Your task to perform on an android device: open app "Pandora - Music & Podcasts" (install if not already installed), go to login, and select forgot password Image 0: 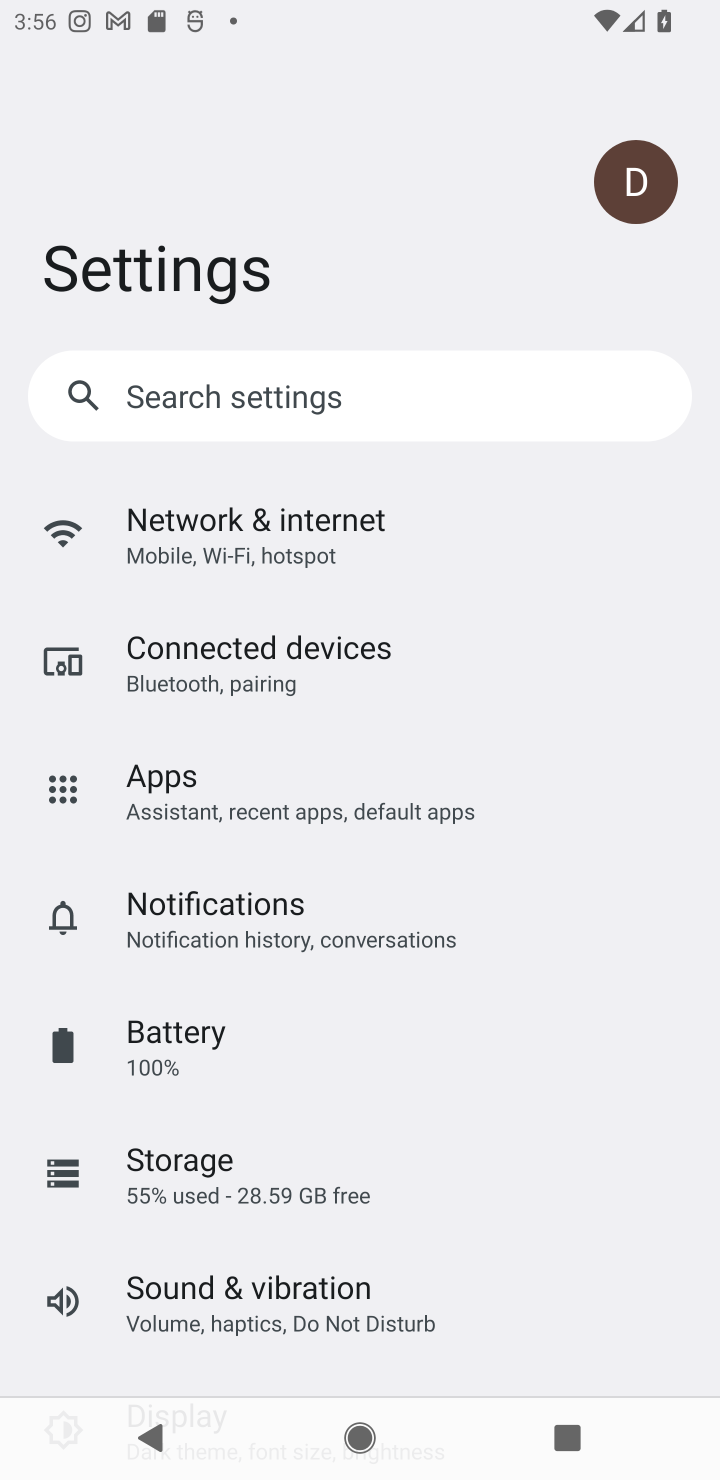
Step 0: press home button
Your task to perform on an android device: open app "Pandora - Music & Podcasts" (install if not already installed), go to login, and select forgot password Image 1: 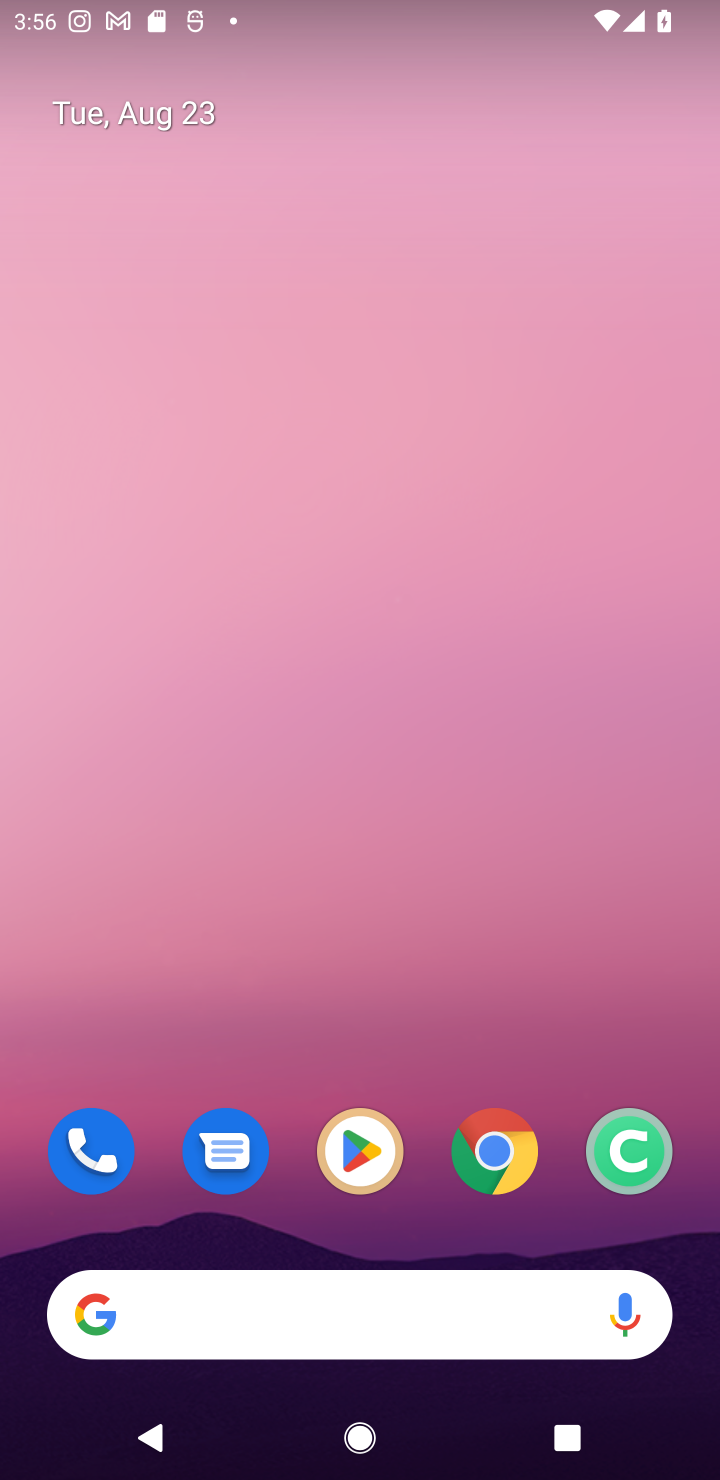
Step 1: click (382, 1129)
Your task to perform on an android device: open app "Pandora - Music & Podcasts" (install if not already installed), go to login, and select forgot password Image 2: 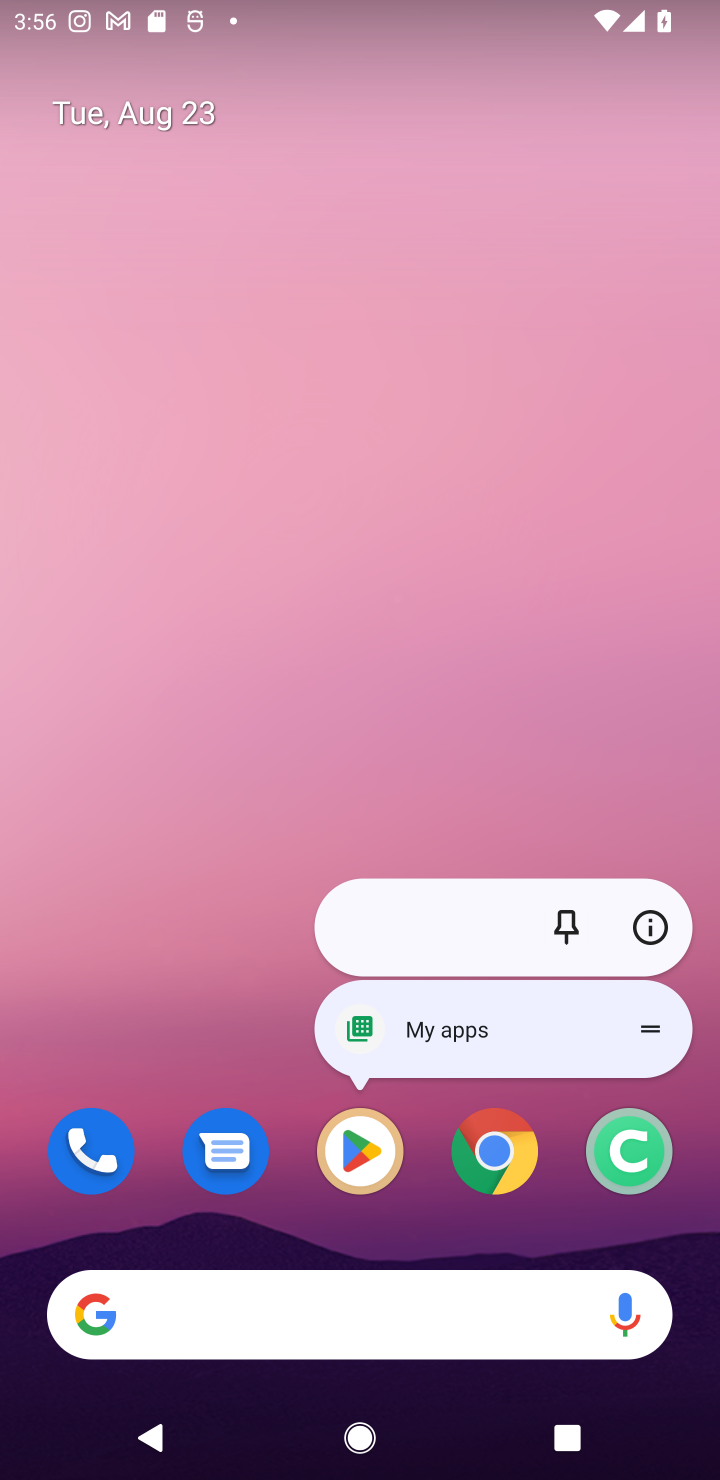
Step 2: click (352, 1154)
Your task to perform on an android device: open app "Pandora - Music & Podcasts" (install if not already installed), go to login, and select forgot password Image 3: 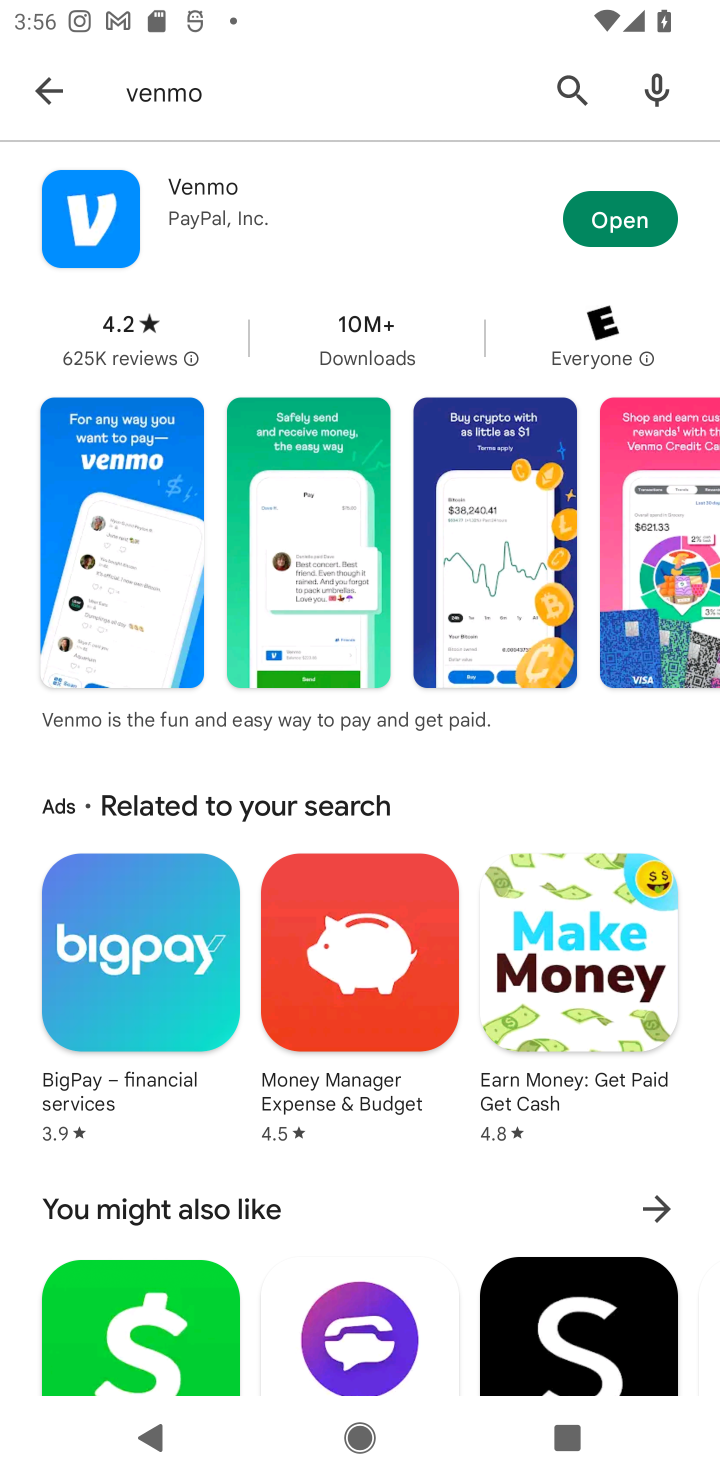
Step 3: click (566, 88)
Your task to perform on an android device: open app "Pandora - Music & Podcasts" (install if not already installed), go to login, and select forgot password Image 4: 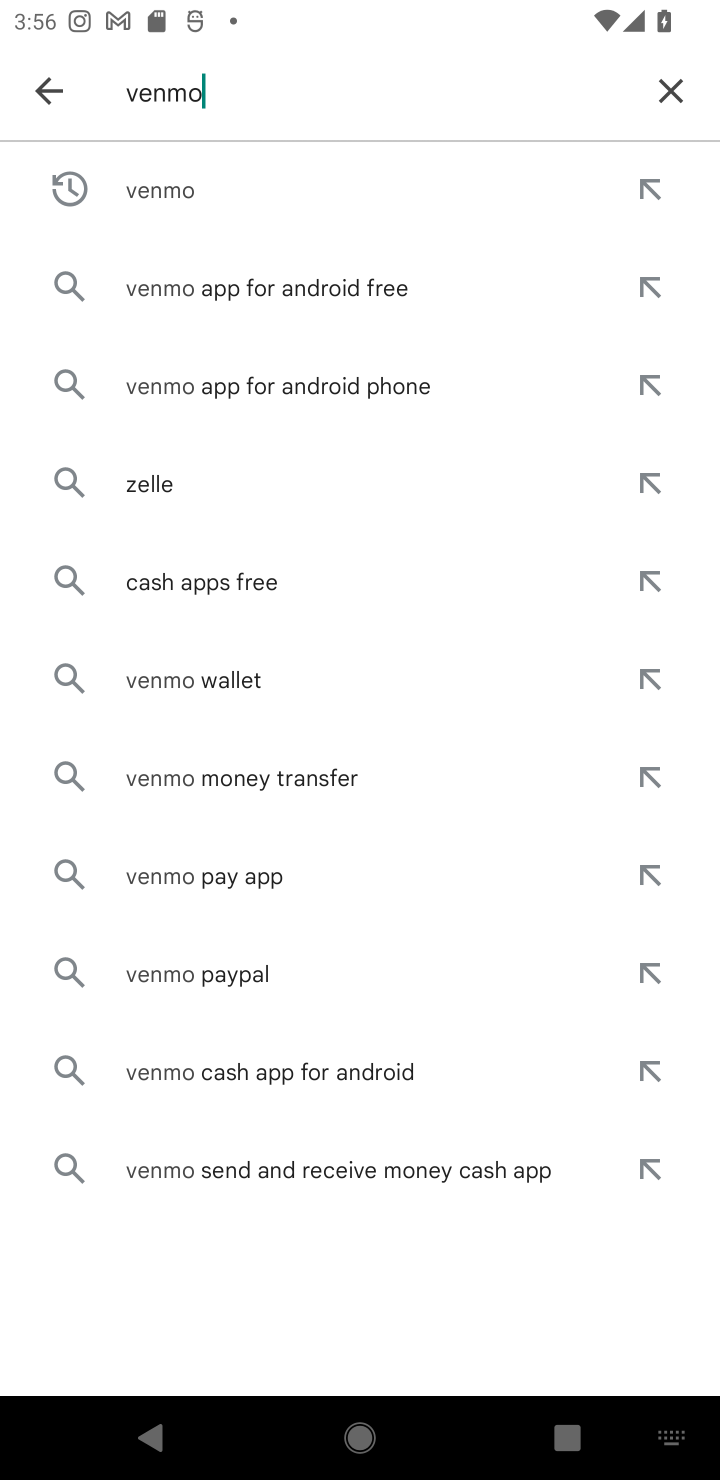
Step 4: click (669, 84)
Your task to perform on an android device: open app "Pandora - Music & Podcasts" (install if not already installed), go to login, and select forgot password Image 5: 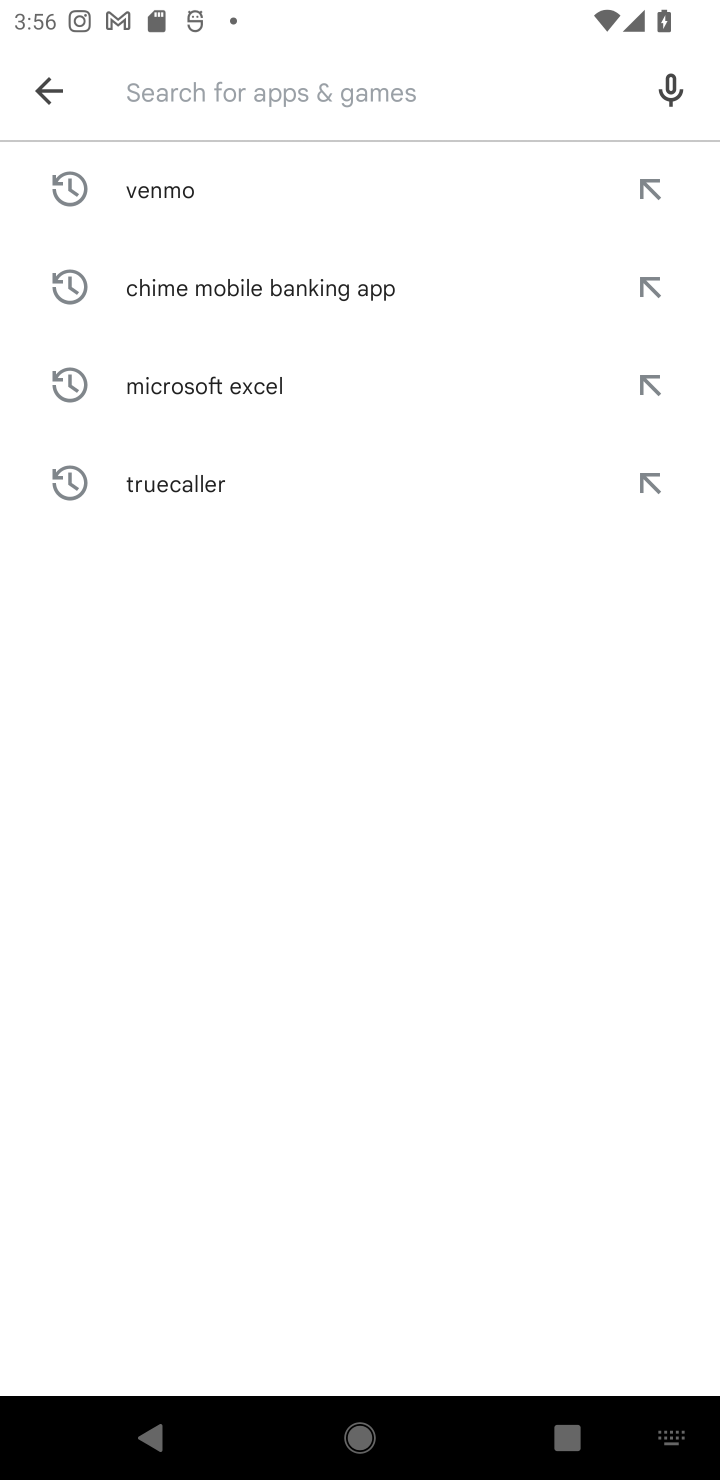
Step 5: type "Pandora - Music & Podcasts"
Your task to perform on an android device: open app "Pandora - Music & Podcasts" (install if not already installed), go to login, and select forgot password Image 6: 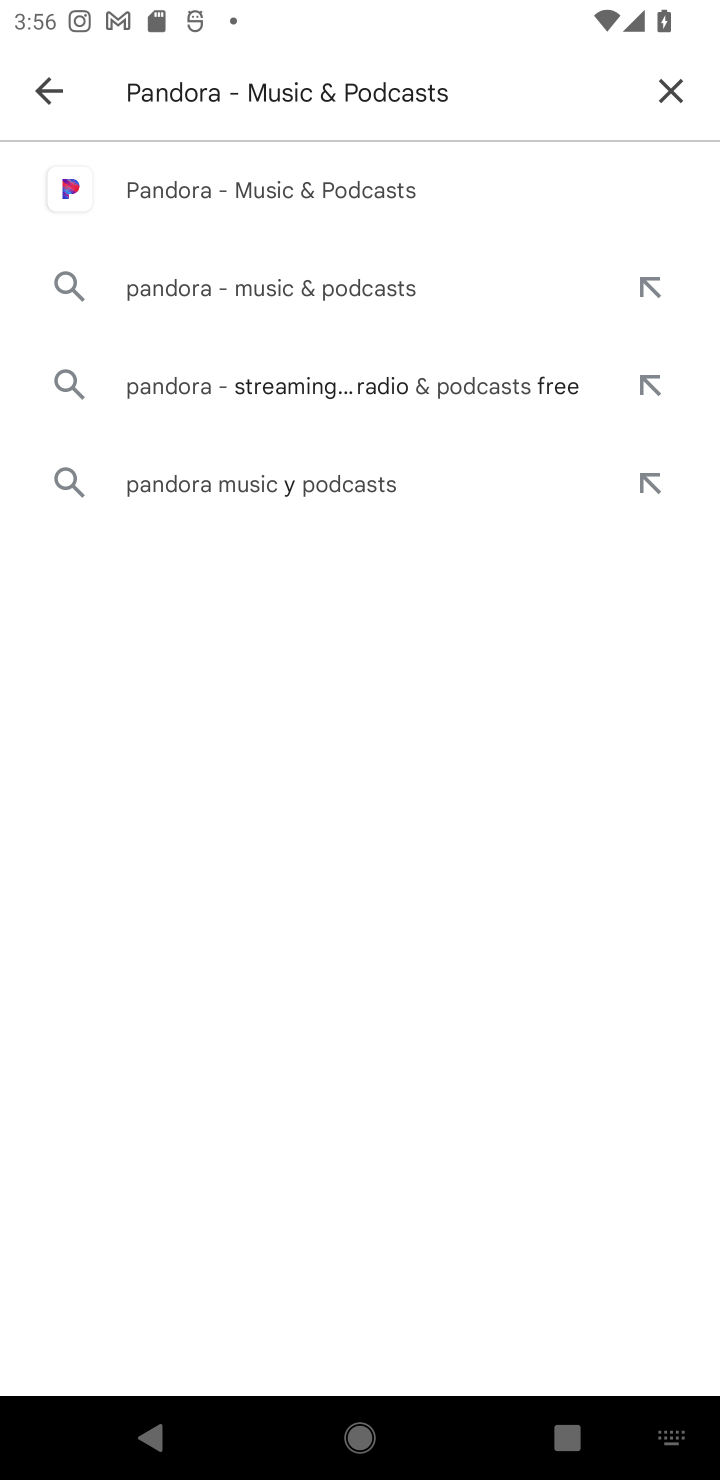
Step 6: click (333, 205)
Your task to perform on an android device: open app "Pandora - Music & Podcasts" (install if not already installed), go to login, and select forgot password Image 7: 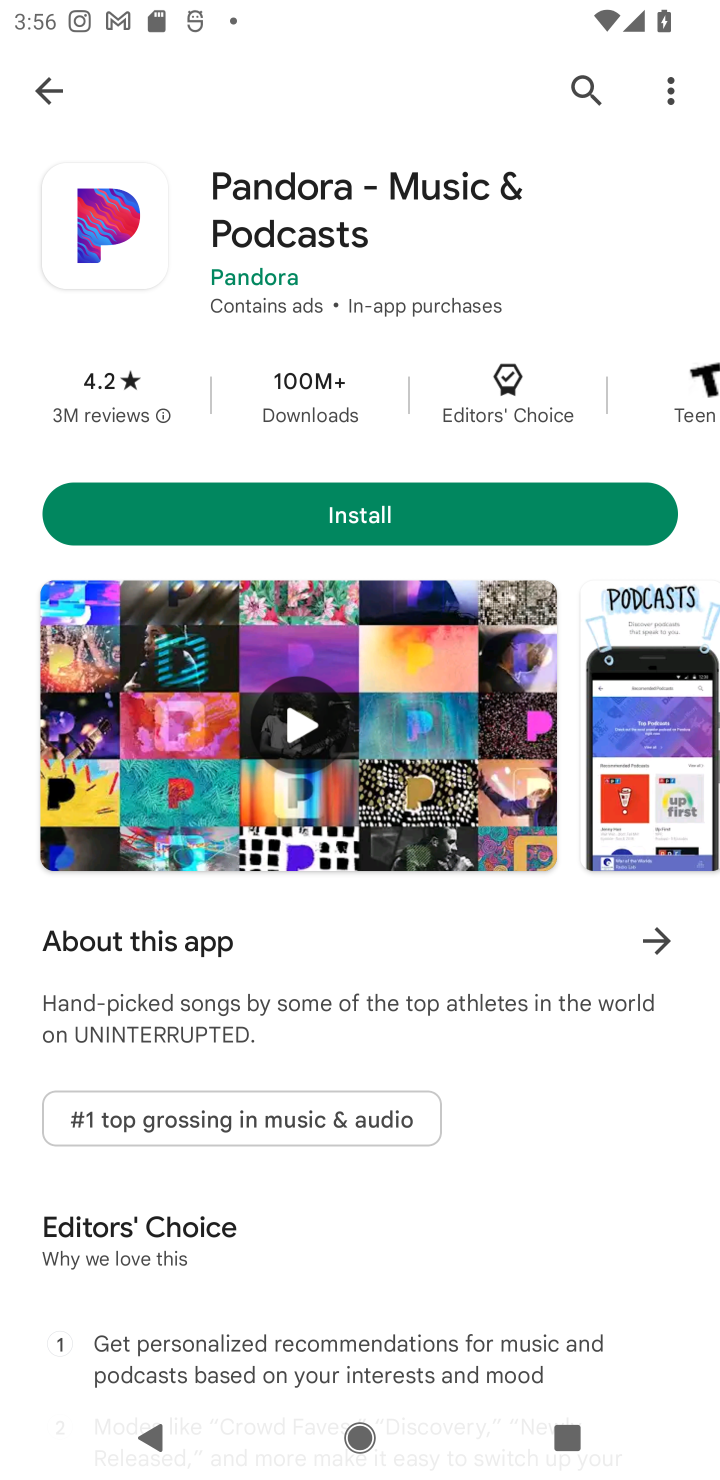
Step 7: click (413, 503)
Your task to perform on an android device: open app "Pandora - Music & Podcasts" (install if not already installed), go to login, and select forgot password Image 8: 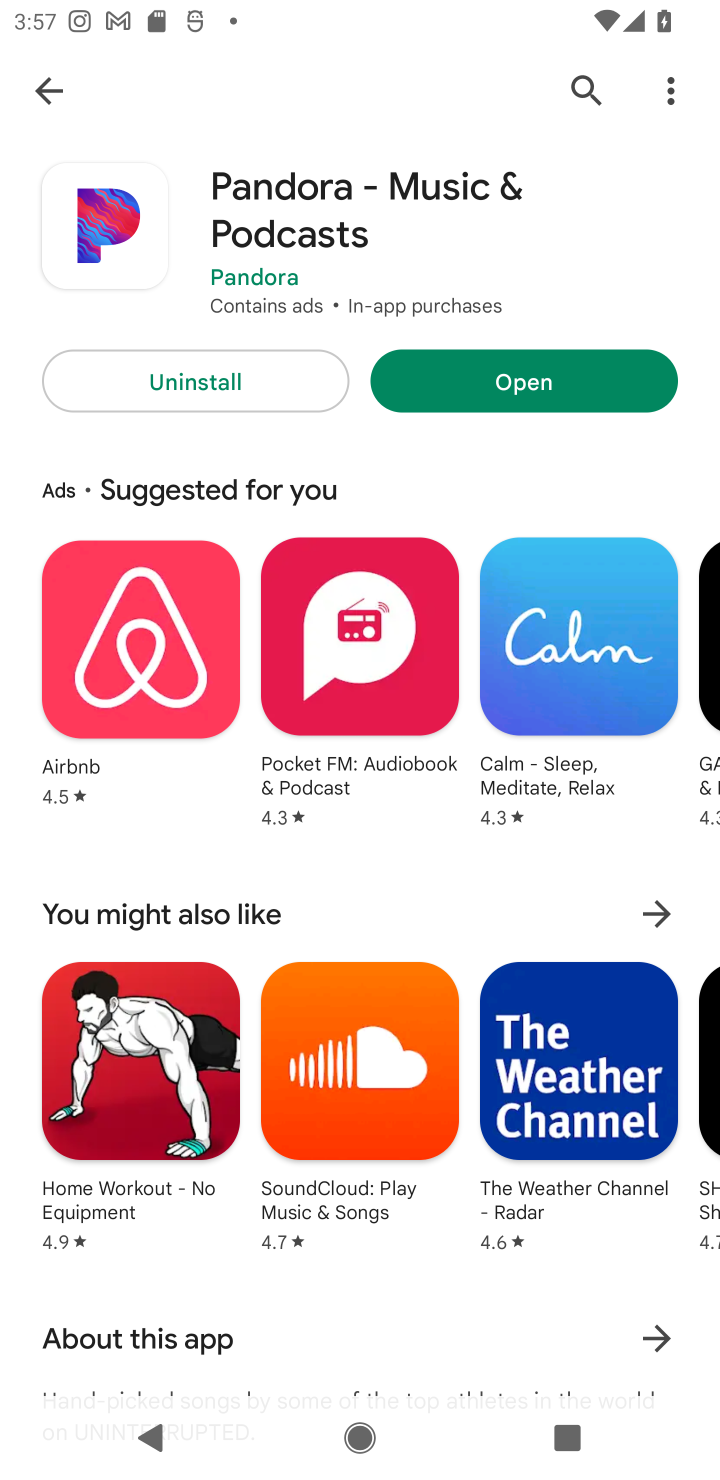
Step 8: click (514, 397)
Your task to perform on an android device: open app "Pandora - Music & Podcasts" (install if not already installed), go to login, and select forgot password Image 9: 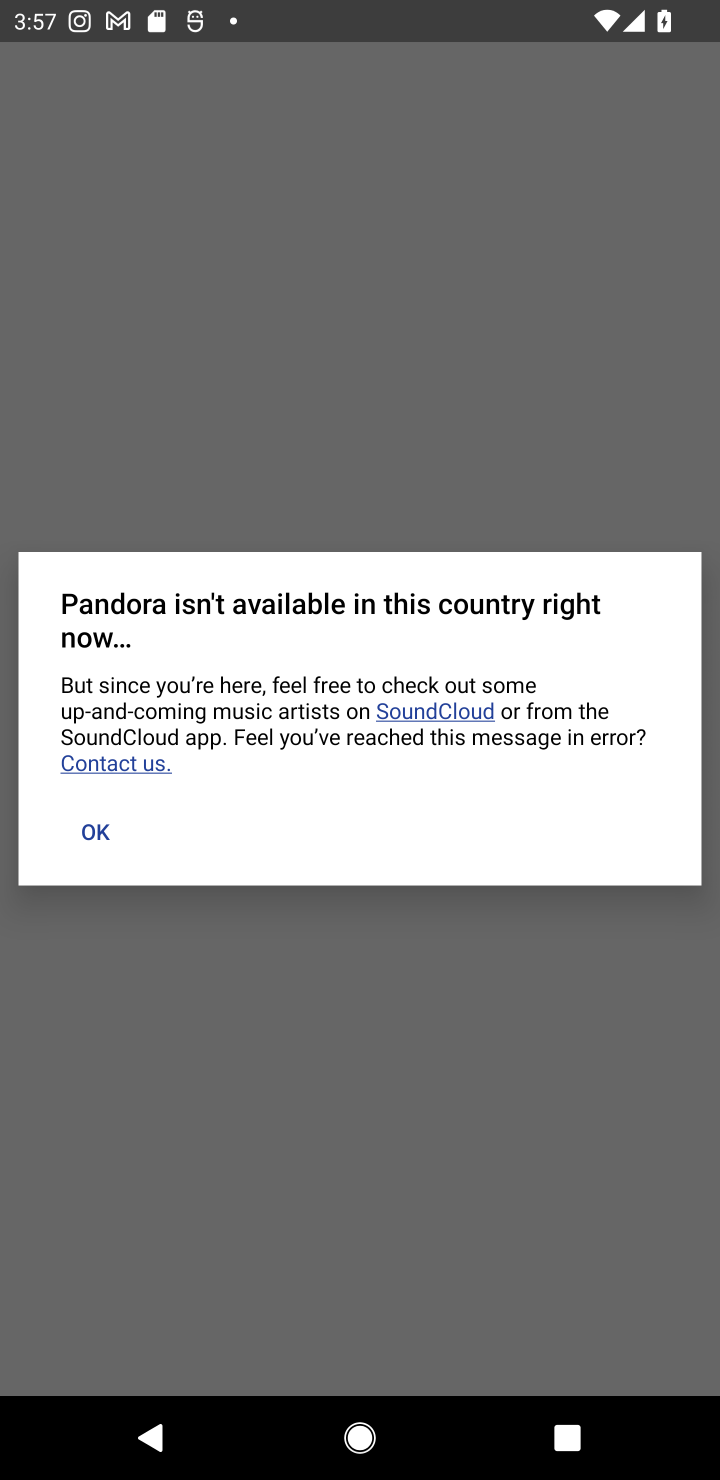
Step 9: task complete